Your task to perform on an android device: turn pop-ups on in chrome Image 0: 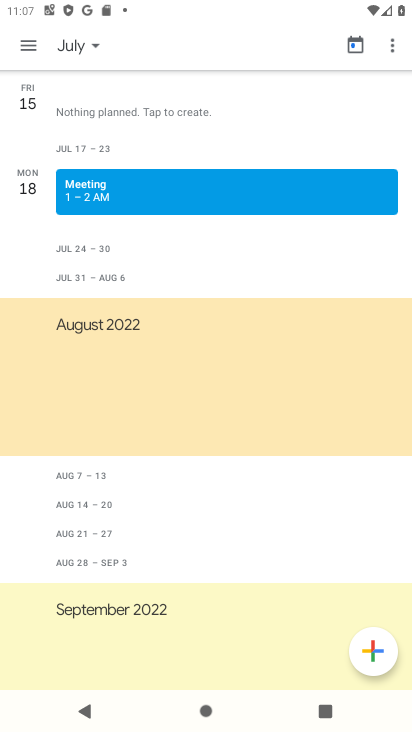
Step 0: press home button
Your task to perform on an android device: turn pop-ups on in chrome Image 1: 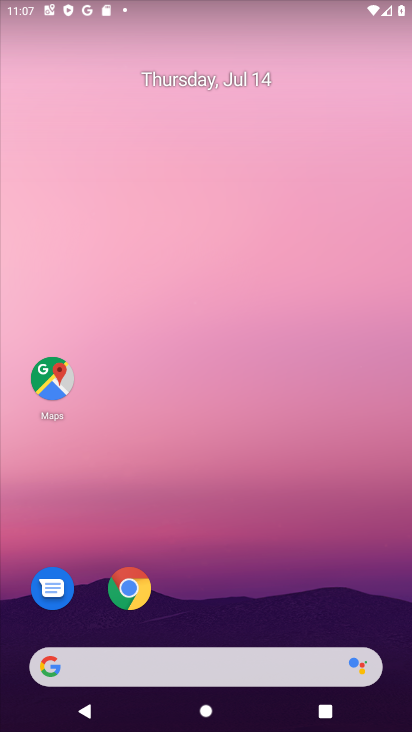
Step 1: click (129, 589)
Your task to perform on an android device: turn pop-ups on in chrome Image 2: 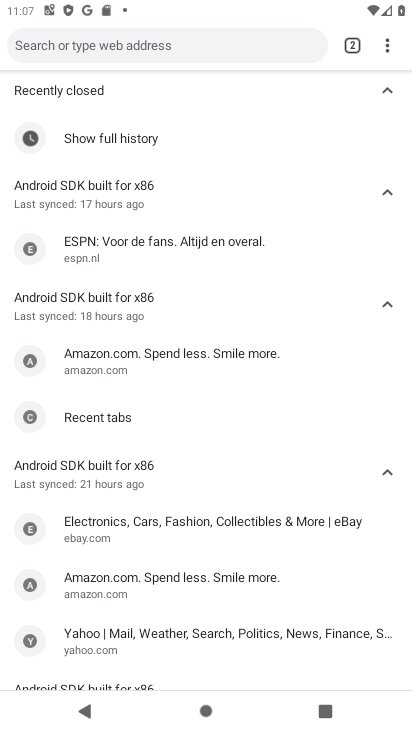
Step 2: drag from (390, 43) to (245, 378)
Your task to perform on an android device: turn pop-ups on in chrome Image 3: 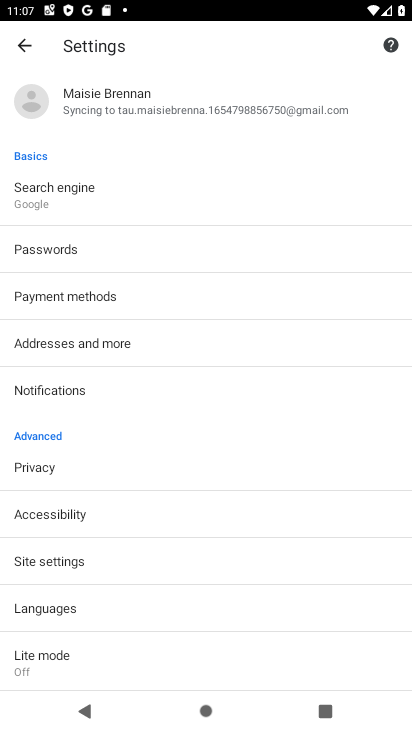
Step 3: click (73, 556)
Your task to perform on an android device: turn pop-ups on in chrome Image 4: 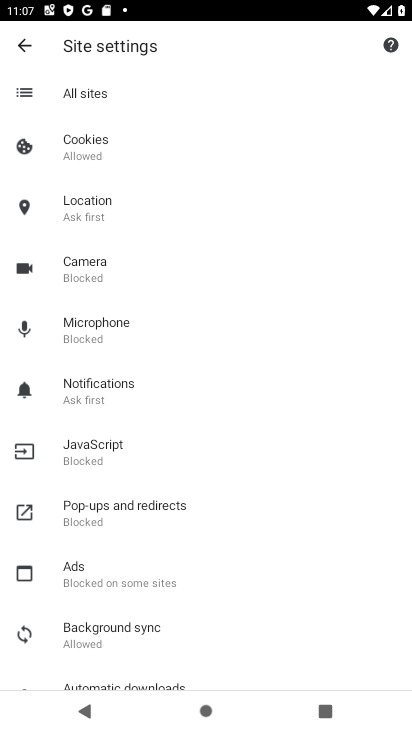
Step 4: click (121, 500)
Your task to perform on an android device: turn pop-ups on in chrome Image 5: 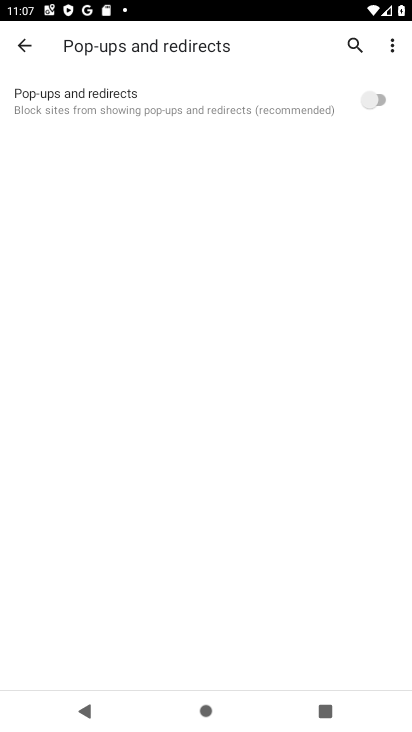
Step 5: click (379, 93)
Your task to perform on an android device: turn pop-ups on in chrome Image 6: 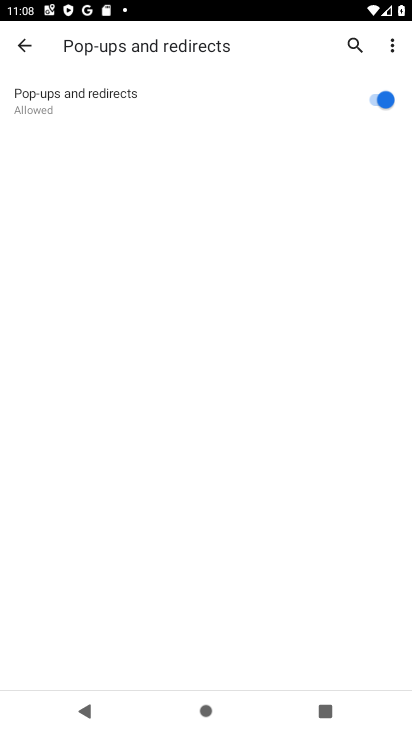
Step 6: task complete